Your task to perform on an android device: turn on data saver in the chrome app Image 0: 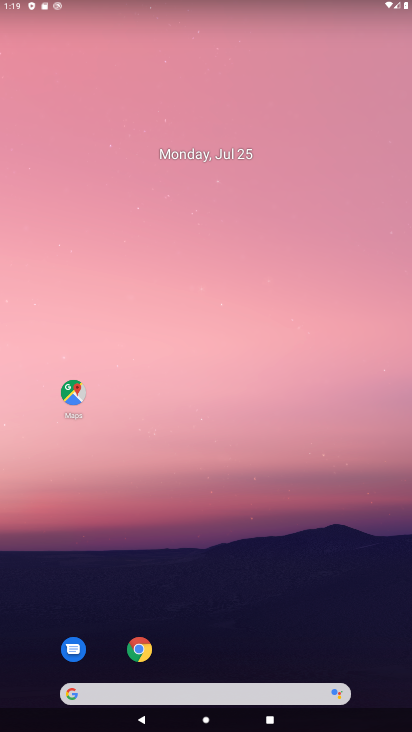
Step 0: click (145, 653)
Your task to perform on an android device: turn on data saver in the chrome app Image 1: 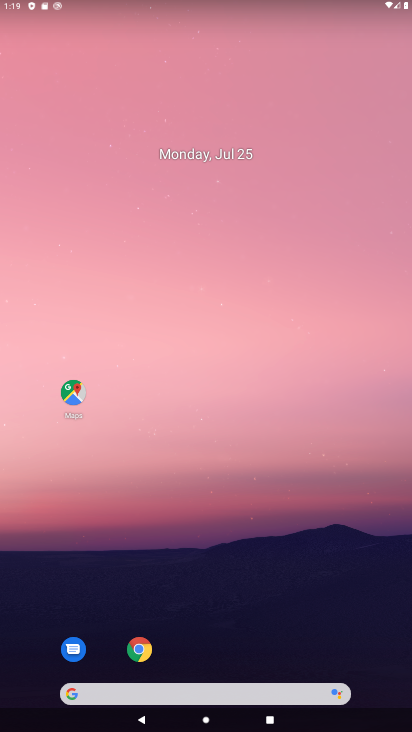
Step 1: click (145, 653)
Your task to perform on an android device: turn on data saver in the chrome app Image 2: 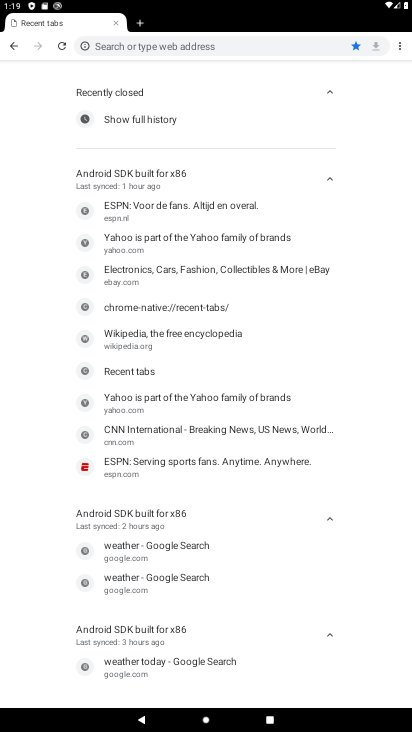
Step 2: click (403, 43)
Your task to perform on an android device: turn on data saver in the chrome app Image 3: 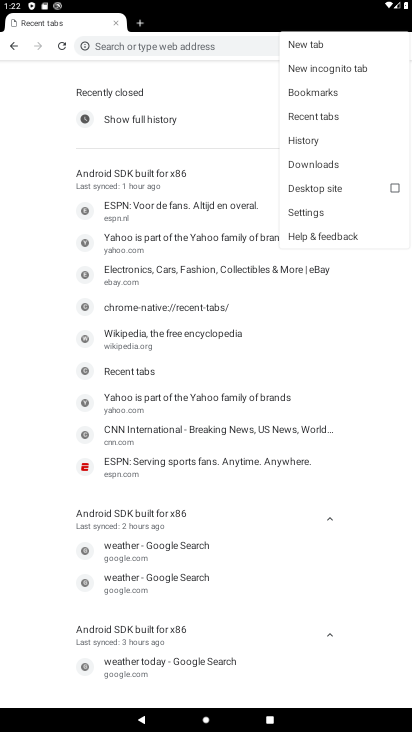
Step 3: click (339, 209)
Your task to perform on an android device: turn on data saver in the chrome app Image 4: 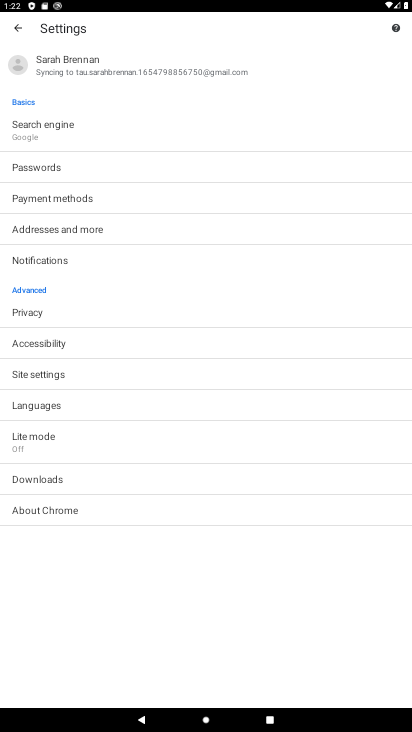
Step 4: click (61, 439)
Your task to perform on an android device: turn on data saver in the chrome app Image 5: 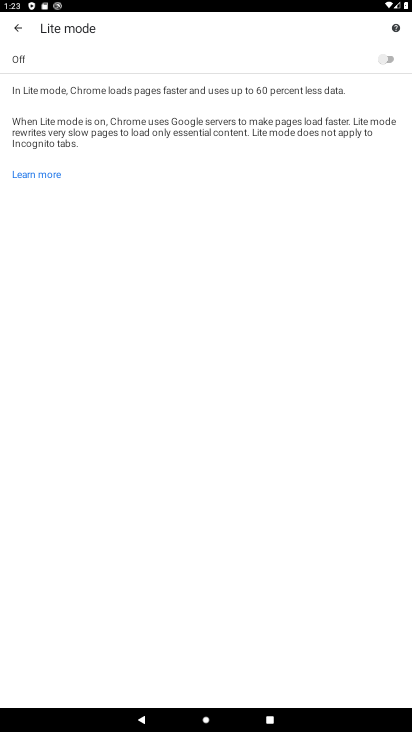
Step 5: click (384, 61)
Your task to perform on an android device: turn on data saver in the chrome app Image 6: 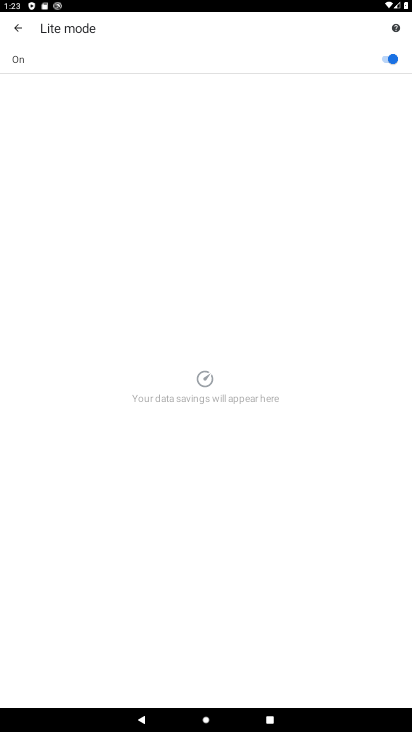
Step 6: task complete